Your task to perform on an android device: Turn on the flashlight Image 0: 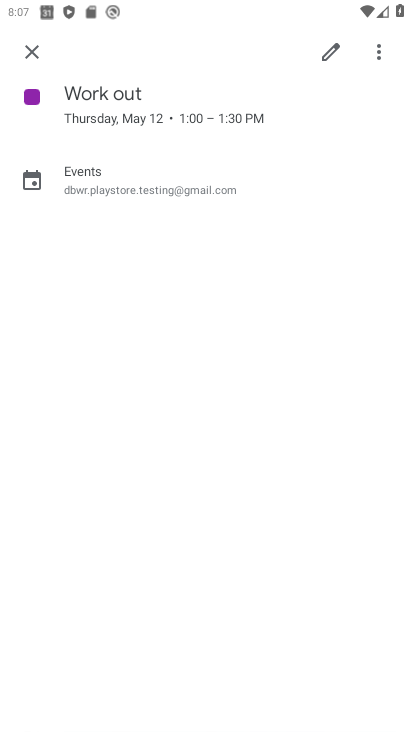
Step 0: press home button
Your task to perform on an android device: Turn on the flashlight Image 1: 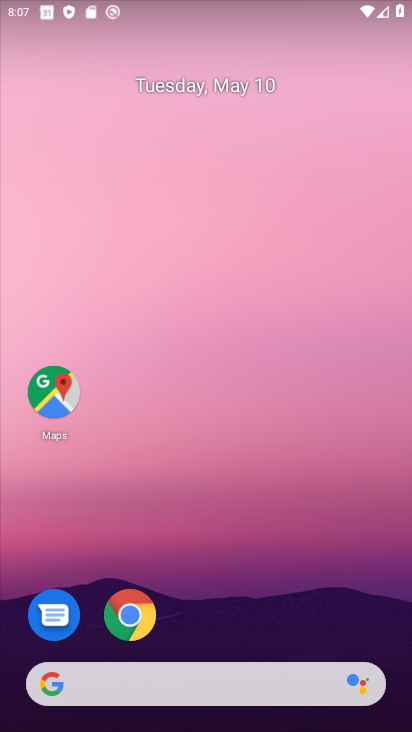
Step 1: drag from (177, 598) to (263, 320)
Your task to perform on an android device: Turn on the flashlight Image 2: 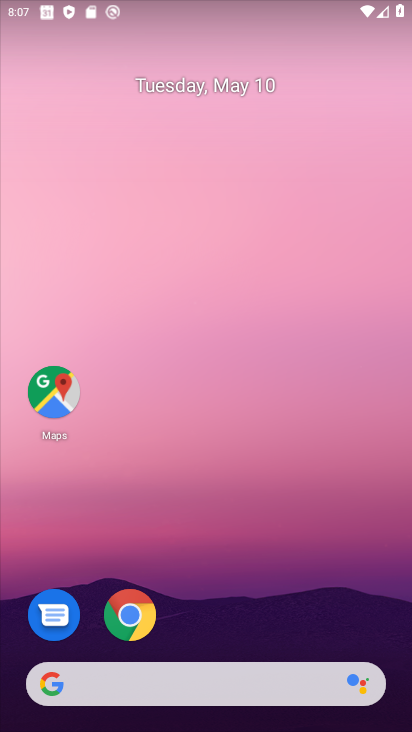
Step 2: drag from (212, 600) to (293, 179)
Your task to perform on an android device: Turn on the flashlight Image 3: 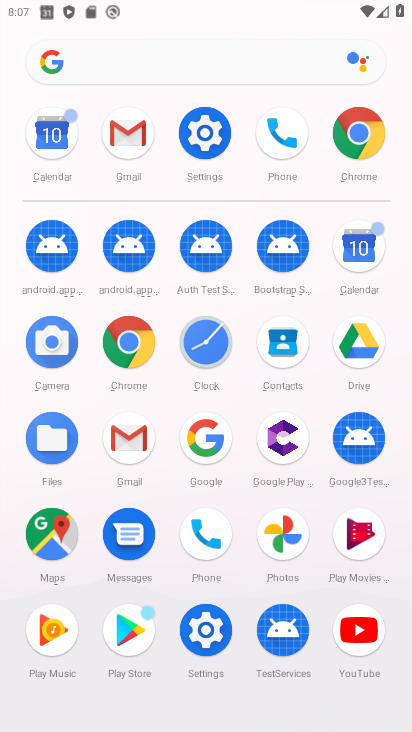
Step 3: click (211, 125)
Your task to perform on an android device: Turn on the flashlight Image 4: 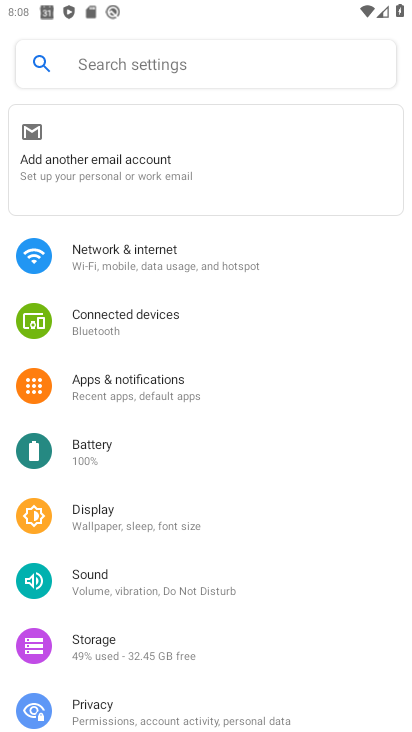
Step 4: click (183, 72)
Your task to perform on an android device: Turn on the flashlight Image 5: 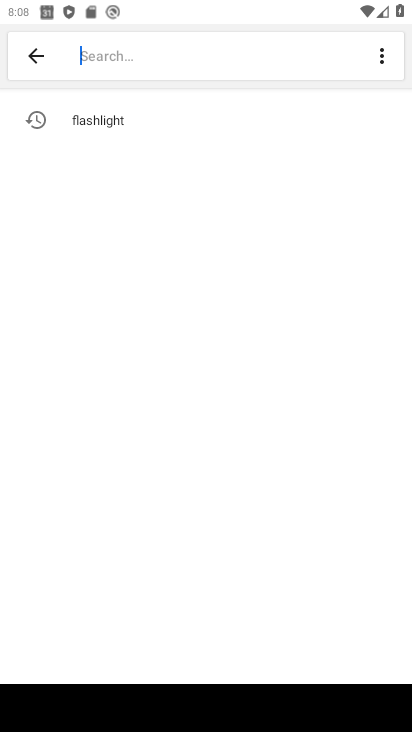
Step 5: click (120, 117)
Your task to perform on an android device: Turn on the flashlight Image 6: 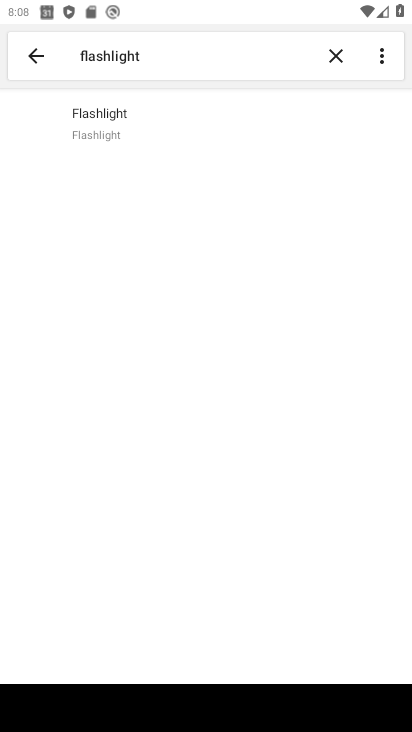
Step 6: task complete